Your task to perform on an android device: Do I have any events this weekend? Image 0: 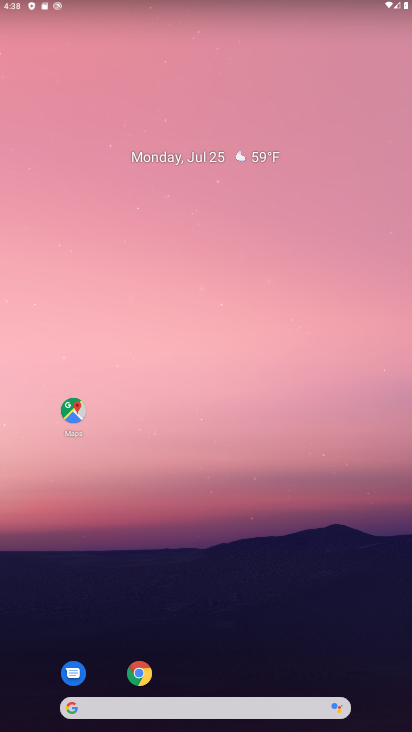
Step 0: drag from (236, 647) to (200, 25)
Your task to perform on an android device: Do I have any events this weekend? Image 1: 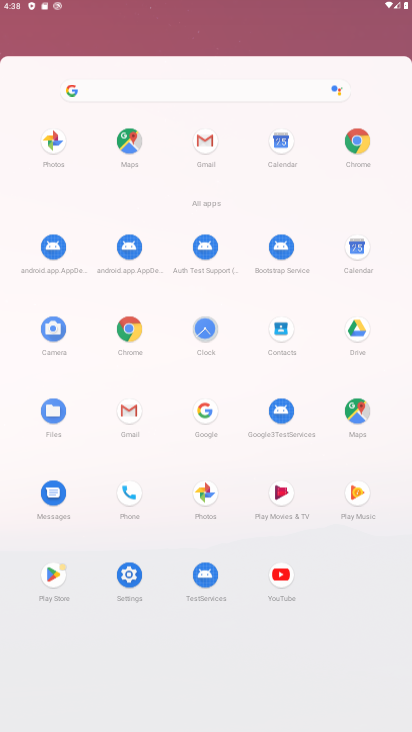
Step 1: drag from (259, 675) to (256, 104)
Your task to perform on an android device: Do I have any events this weekend? Image 2: 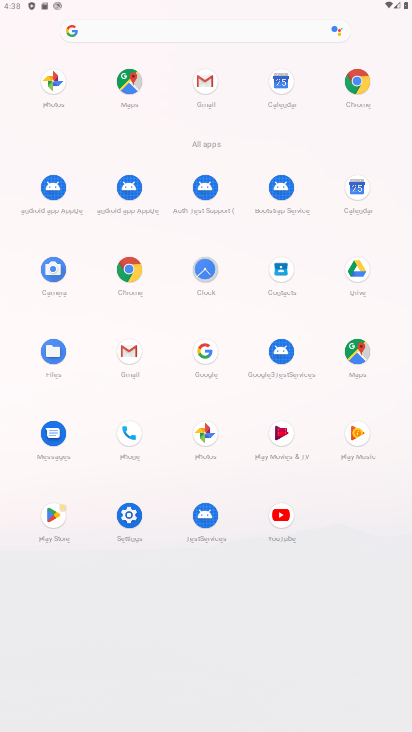
Step 2: click (295, 234)
Your task to perform on an android device: Do I have any events this weekend? Image 3: 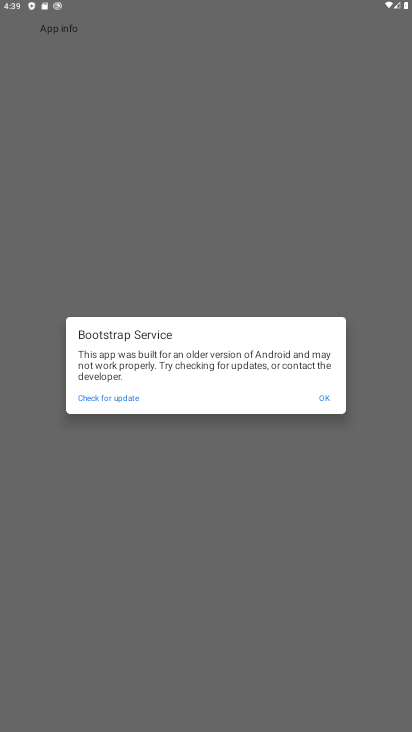
Step 3: click (323, 392)
Your task to perform on an android device: Do I have any events this weekend? Image 4: 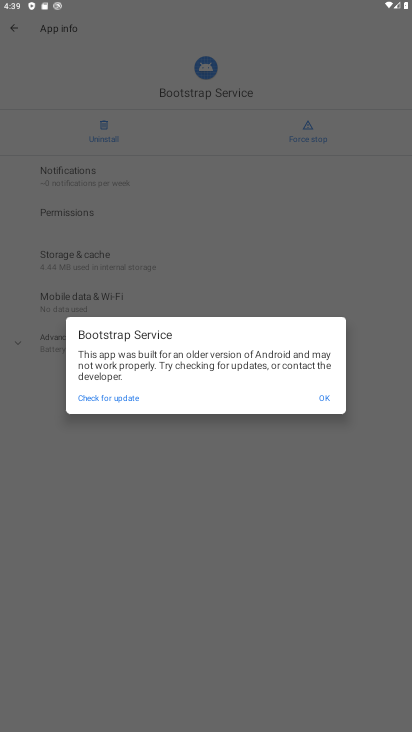
Step 4: click (326, 396)
Your task to perform on an android device: Do I have any events this weekend? Image 5: 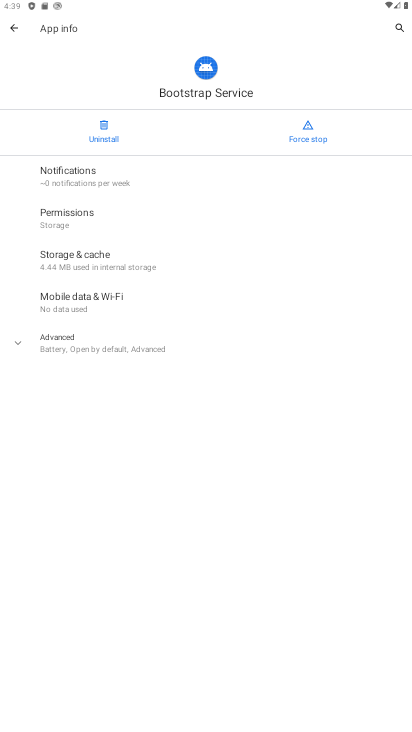
Step 5: click (11, 28)
Your task to perform on an android device: Do I have any events this weekend? Image 6: 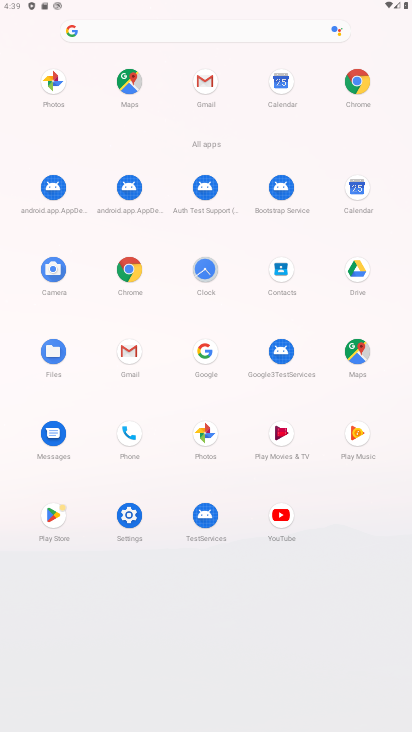
Step 6: click (363, 183)
Your task to perform on an android device: Do I have any events this weekend? Image 7: 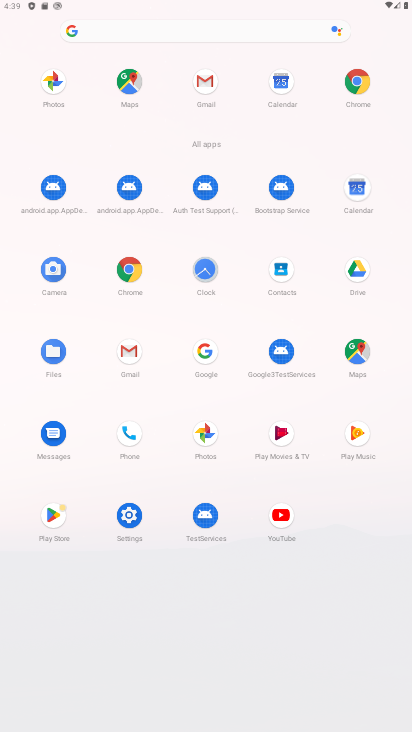
Step 7: click (362, 184)
Your task to perform on an android device: Do I have any events this weekend? Image 8: 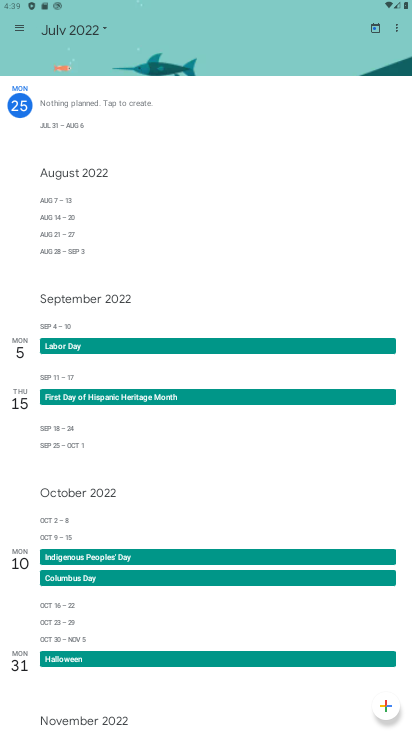
Step 8: drag from (227, 459) to (247, 15)
Your task to perform on an android device: Do I have any events this weekend? Image 9: 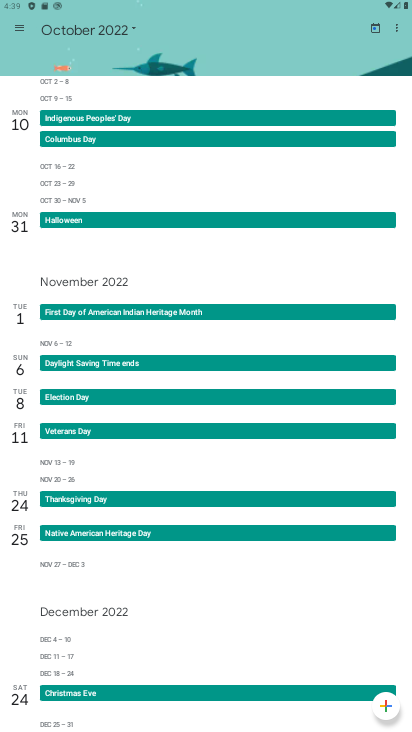
Step 9: drag from (187, 475) to (195, 200)
Your task to perform on an android device: Do I have any events this weekend? Image 10: 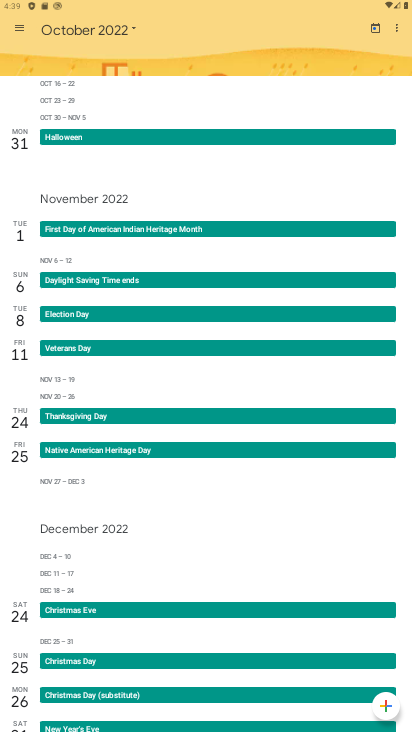
Step 10: drag from (182, 244) to (180, 608)
Your task to perform on an android device: Do I have any events this weekend? Image 11: 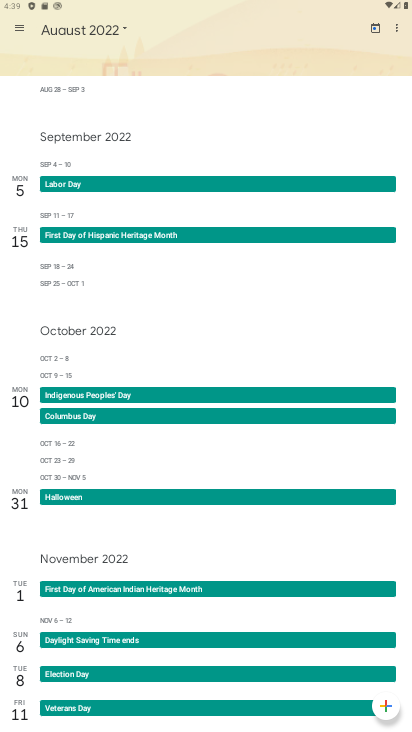
Step 11: drag from (145, 222) to (139, 614)
Your task to perform on an android device: Do I have any events this weekend? Image 12: 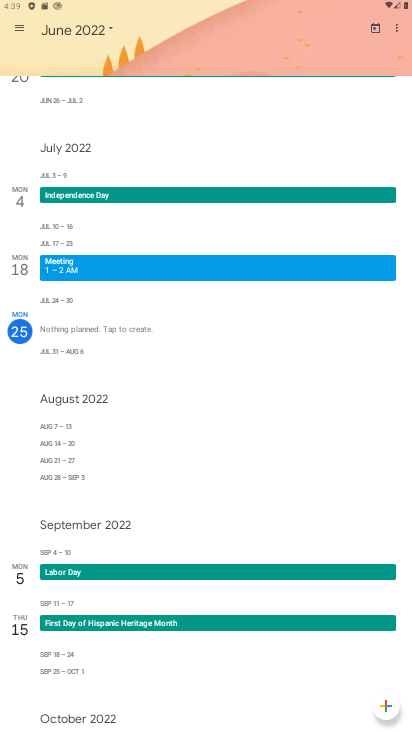
Step 12: drag from (154, 229) to (173, 500)
Your task to perform on an android device: Do I have any events this weekend? Image 13: 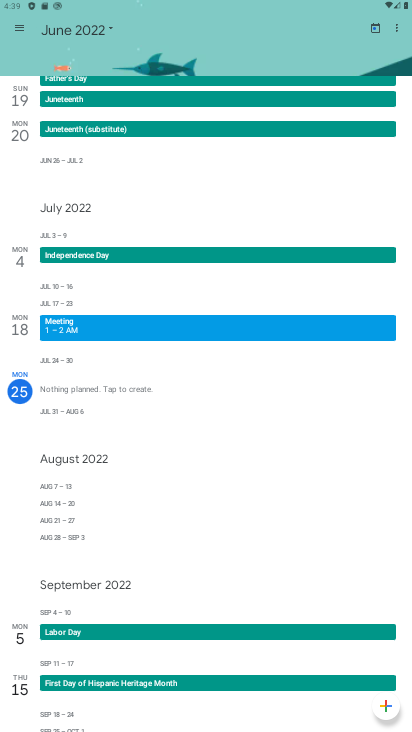
Step 13: click (106, 27)
Your task to perform on an android device: Do I have any events this weekend? Image 14: 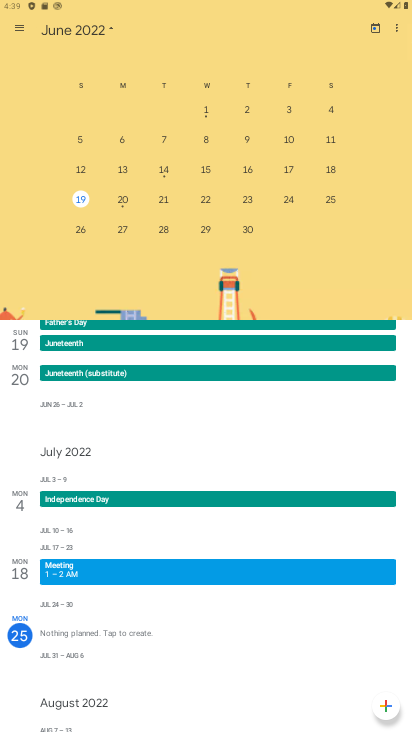
Step 14: click (109, 24)
Your task to perform on an android device: Do I have any events this weekend? Image 15: 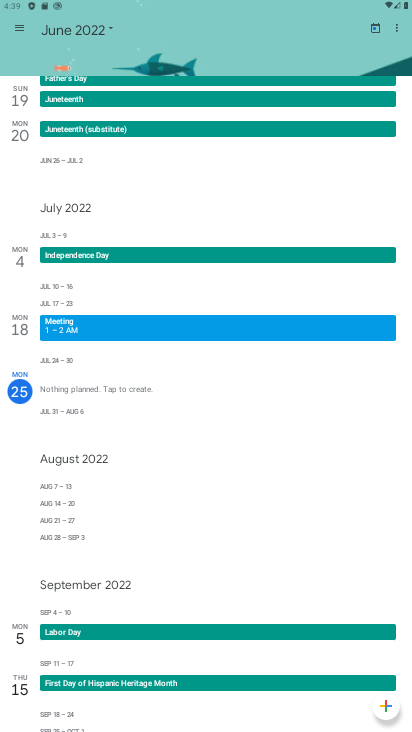
Step 15: click (108, 25)
Your task to perform on an android device: Do I have any events this weekend? Image 16: 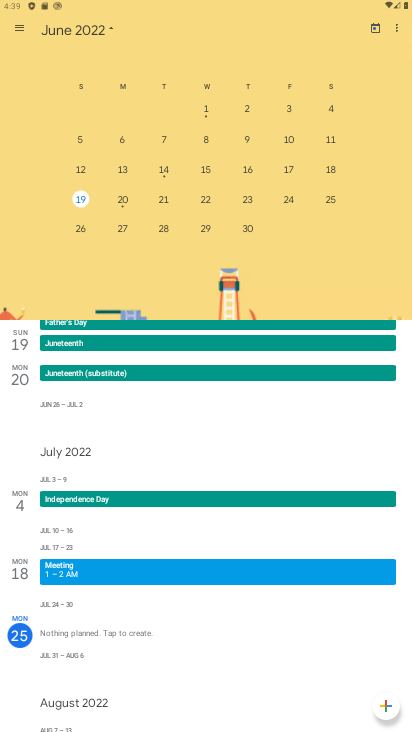
Step 16: drag from (298, 170) to (42, 159)
Your task to perform on an android device: Do I have any events this weekend? Image 17: 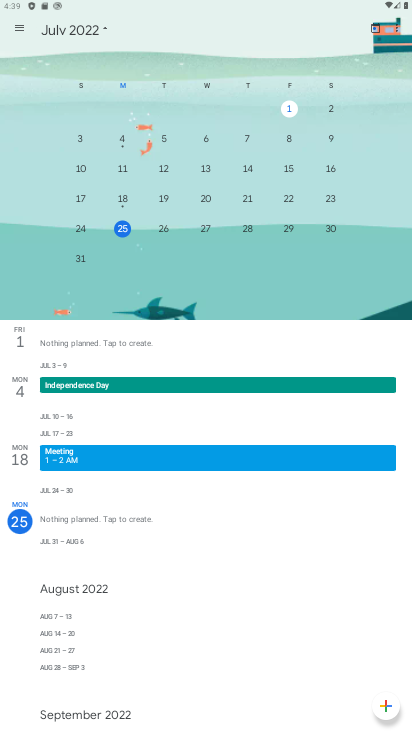
Step 17: click (284, 219)
Your task to perform on an android device: Do I have any events this weekend? Image 18: 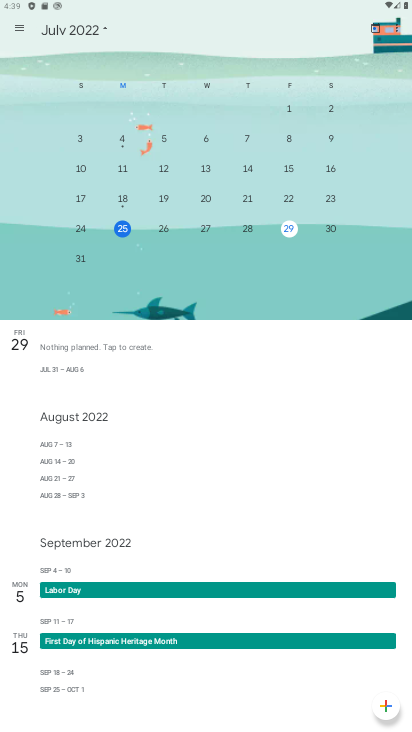
Step 18: task complete